Your task to perform on an android device: Go to battery settings Image 0: 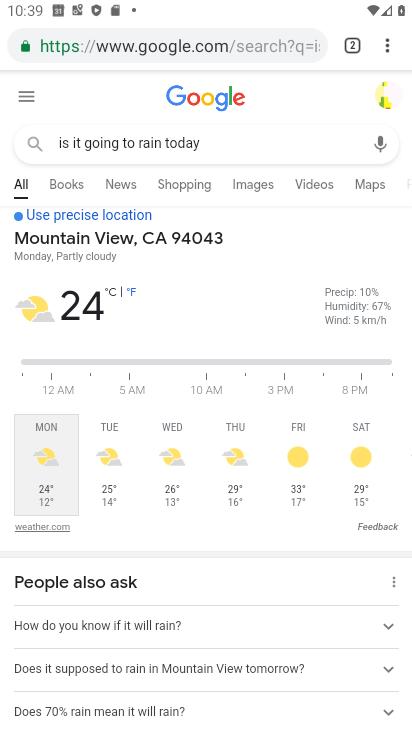
Step 0: drag from (385, 47) to (352, 310)
Your task to perform on an android device: Go to battery settings Image 1: 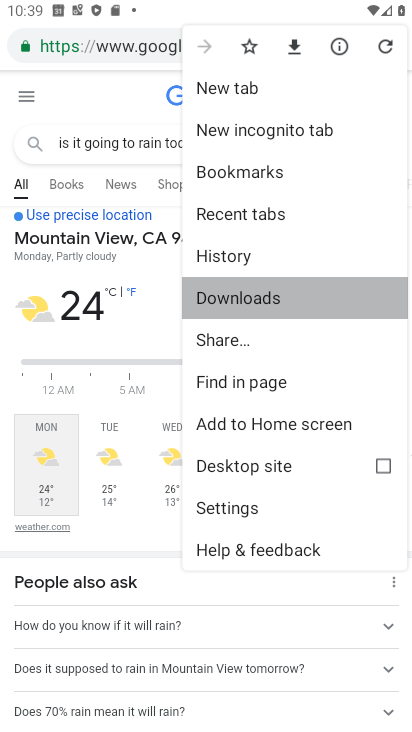
Step 1: press home button
Your task to perform on an android device: Go to battery settings Image 2: 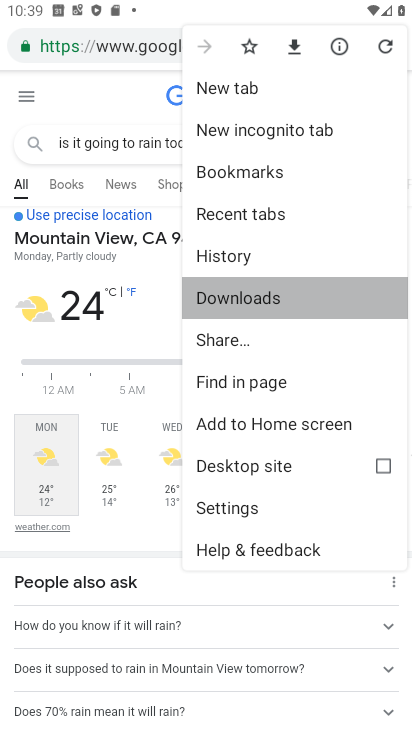
Step 2: drag from (352, 310) to (390, 595)
Your task to perform on an android device: Go to battery settings Image 3: 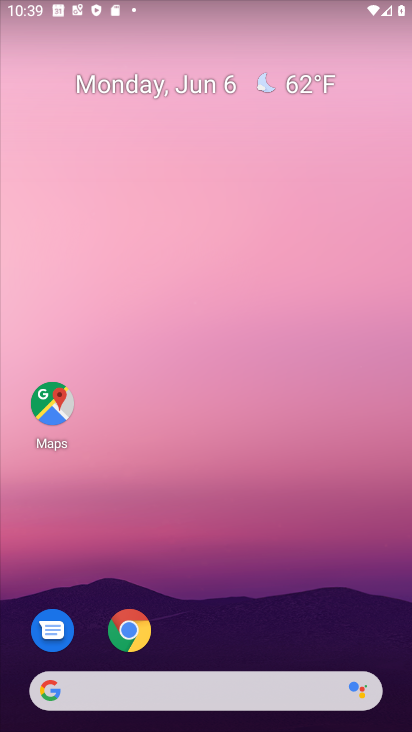
Step 3: drag from (342, 630) to (380, 178)
Your task to perform on an android device: Go to battery settings Image 4: 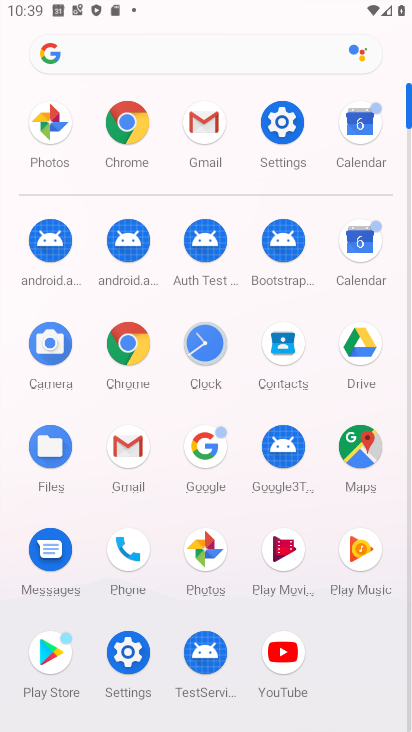
Step 4: click (279, 110)
Your task to perform on an android device: Go to battery settings Image 5: 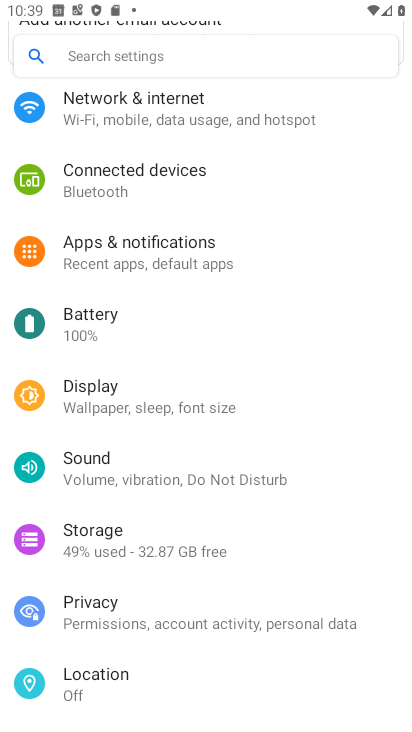
Step 5: click (144, 315)
Your task to perform on an android device: Go to battery settings Image 6: 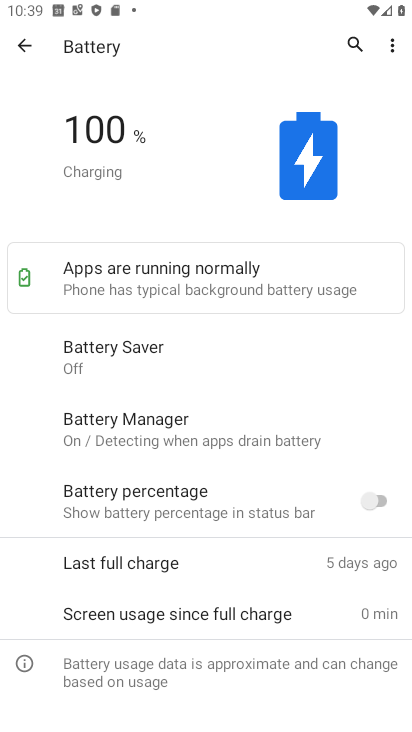
Step 6: task complete